Your task to perform on an android device: Open calendar and show me the fourth week of next month Image 0: 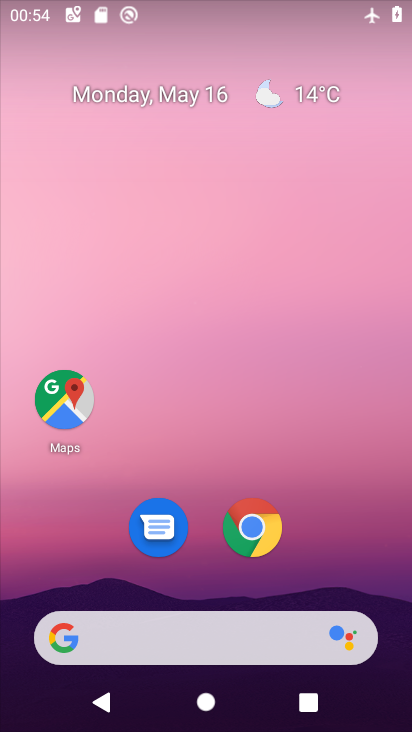
Step 0: drag from (202, 573) to (231, 222)
Your task to perform on an android device: Open calendar and show me the fourth week of next month Image 1: 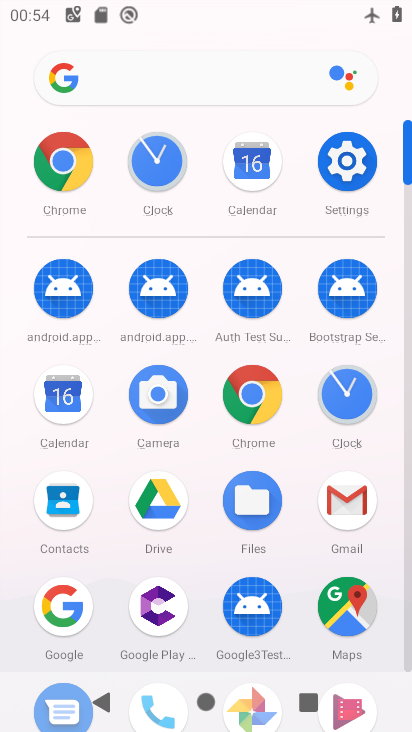
Step 1: click (68, 412)
Your task to perform on an android device: Open calendar and show me the fourth week of next month Image 2: 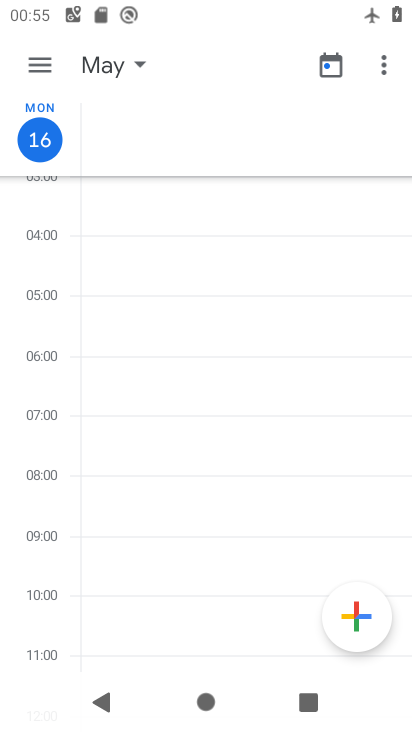
Step 2: click (46, 71)
Your task to perform on an android device: Open calendar and show me the fourth week of next month Image 3: 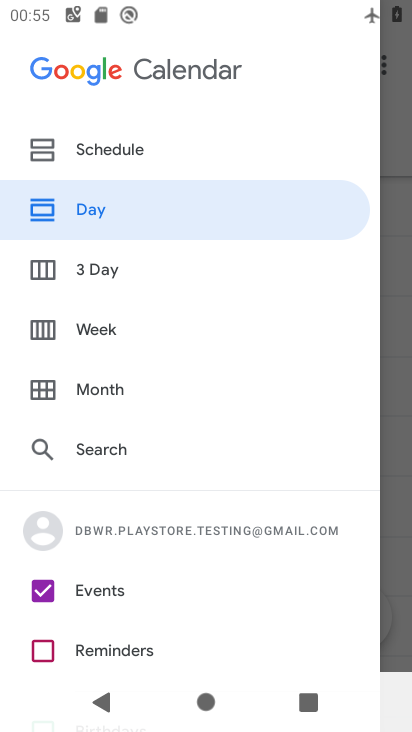
Step 3: click (109, 333)
Your task to perform on an android device: Open calendar and show me the fourth week of next month Image 4: 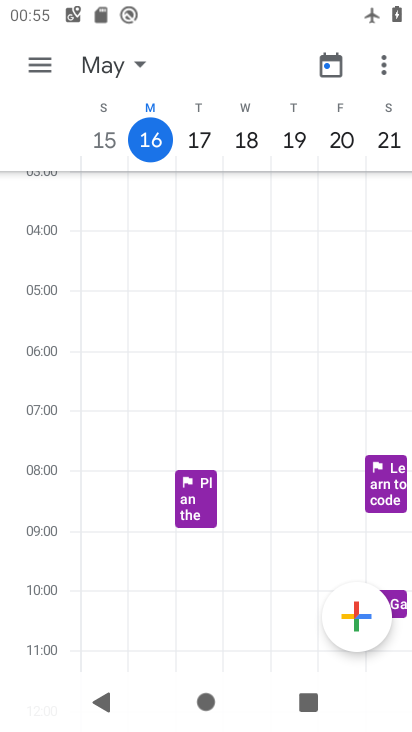
Step 4: task complete